Your task to perform on an android device: Search for vegetarian restaurants on Maps Image 0: 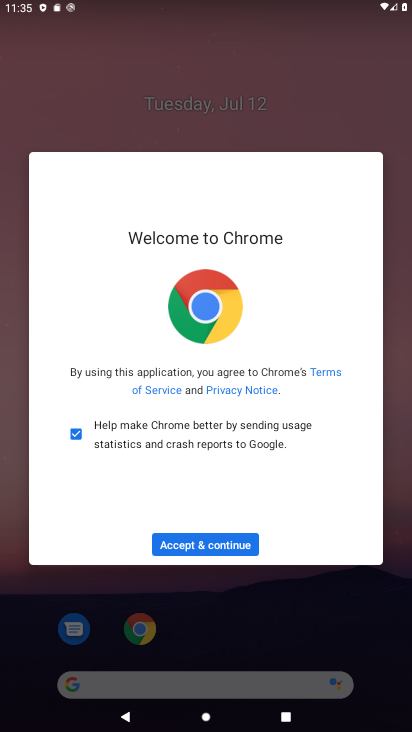
Step 0: press home button
Your task to perform on an android device: Search for vegetarian restaurants on Maps Image 1: 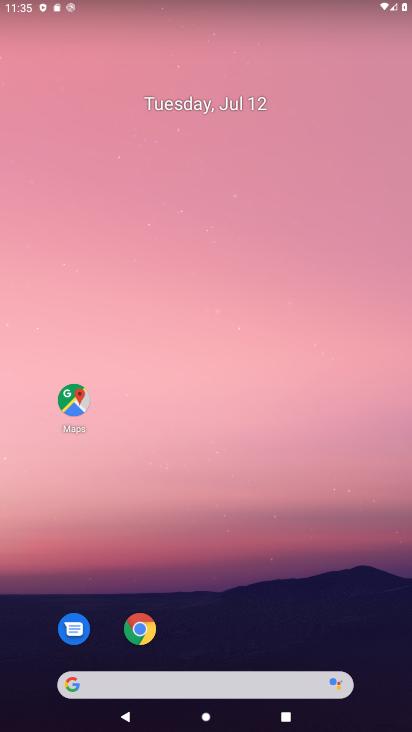
Step 1: drag from (266, 611) to (219, 154)
Your task to perform on an android device: Search for vegetarian restaurants on Maps Image 2: 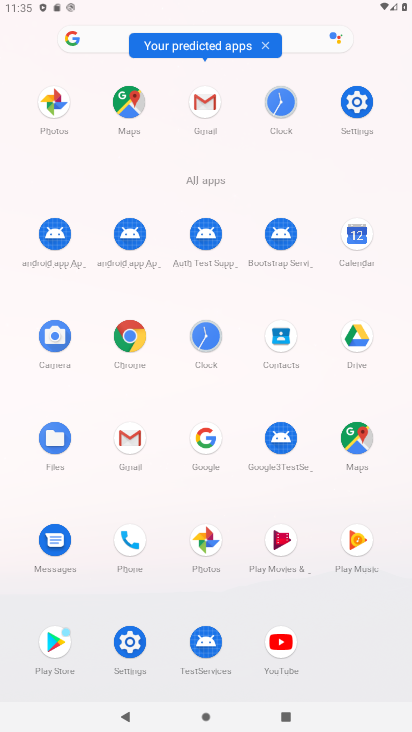
Step 2: click (135, 97)
Your task to perform on an android device: Search for vegetarian restaurants on Maps Image 3: 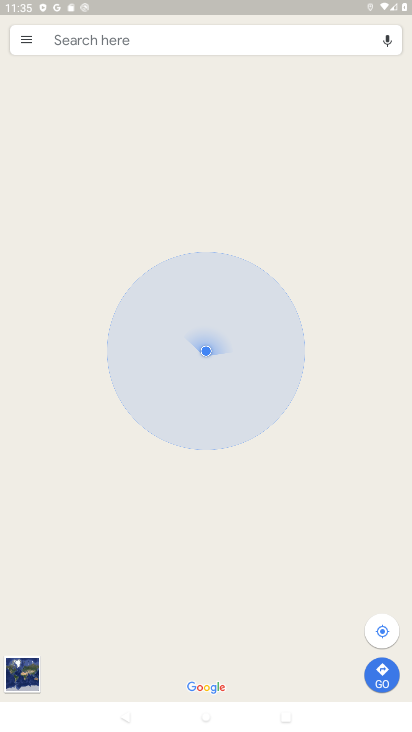
Step 3: click (197, 42)
Your task to perform on an android device: Search for vegetarian restaurants on Maps Image 4: 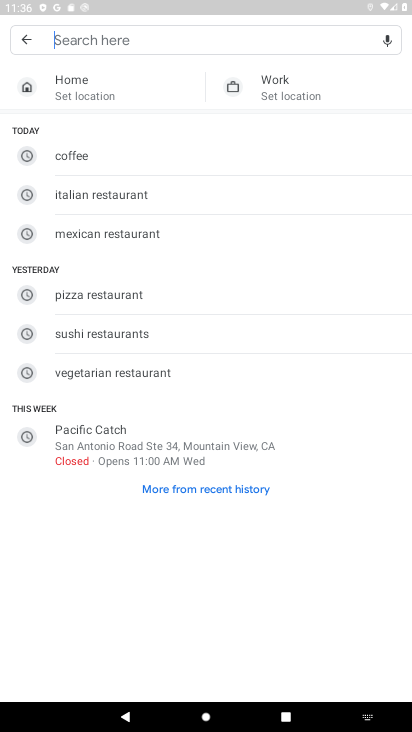
Step 4: type "vegetarian restaurants"
Your task to perform on an android device: Search for vegetarian restaurants on Maps Image 5: 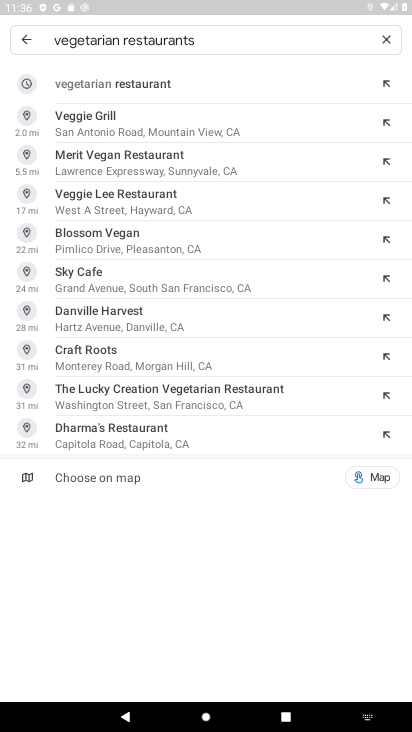
Step 5: press enter
Your task to perform on an android device: Search for vegetarian restaurants on Maps Image 6: 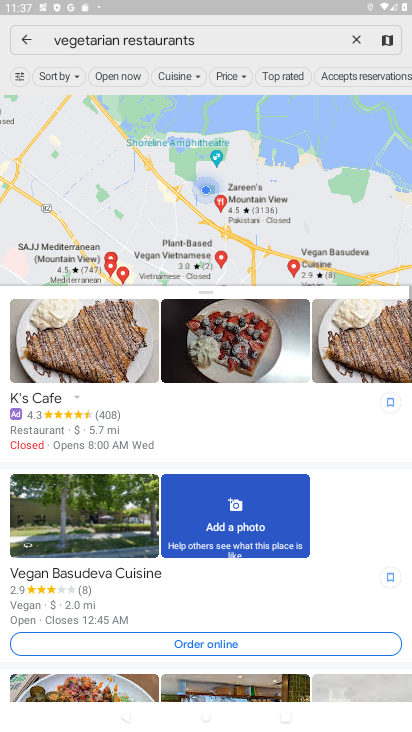
Step 6: task complete